Your task to perform on an android device: make emails show in primary in the gmail app Image 0: 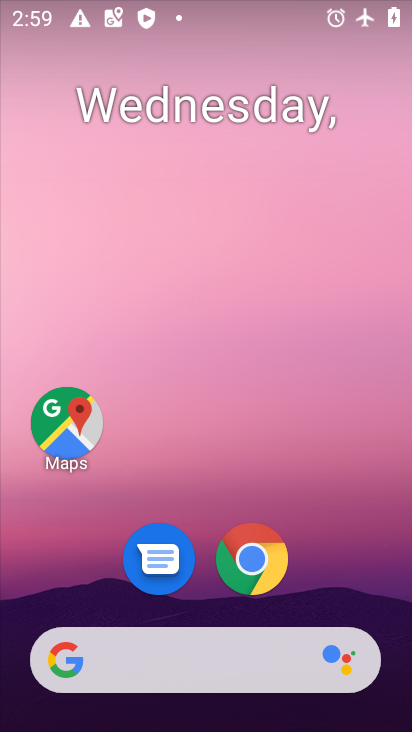
Step 0: drag from (200, 607) to (196, 41)
Your task to perform on an android device: make emails show in primary in the gmail app Image 1: 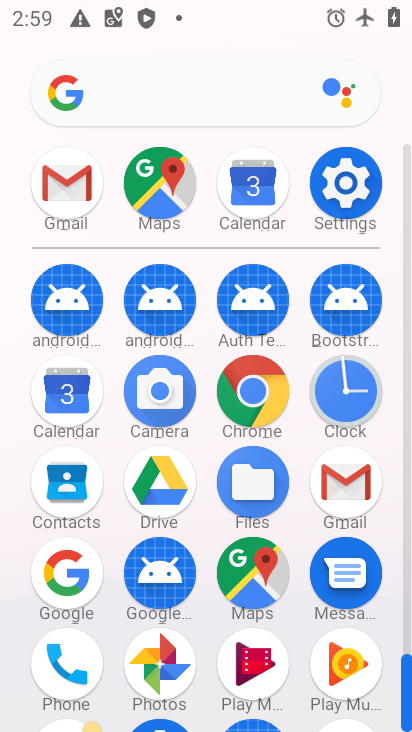
Step 1: drag from (204, 67) to (204, 3)
Your task to perform on an android device: make emails show in primary in the gmail app Image 2: 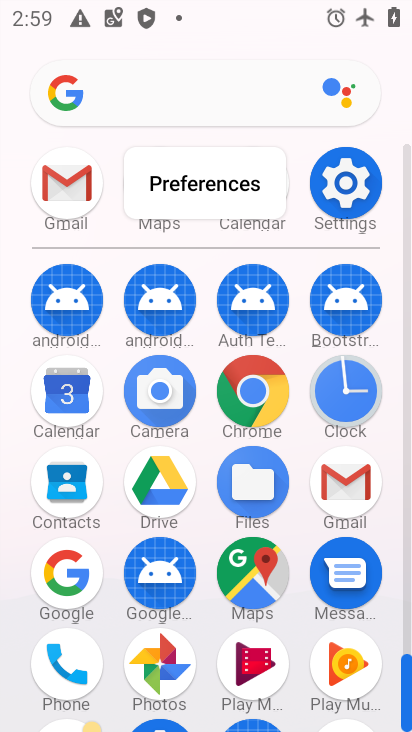
Step 2: click (348, 483)
Your task to perform on an android device: make emails show in primary in the gmail app Image 3: 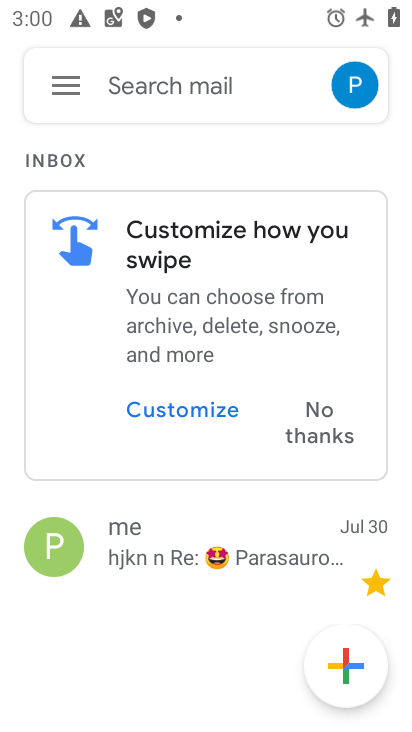
Step 3: click (60, 87)
Your task to perform on an android device: make emails show in primary in the gmail app Image 4: 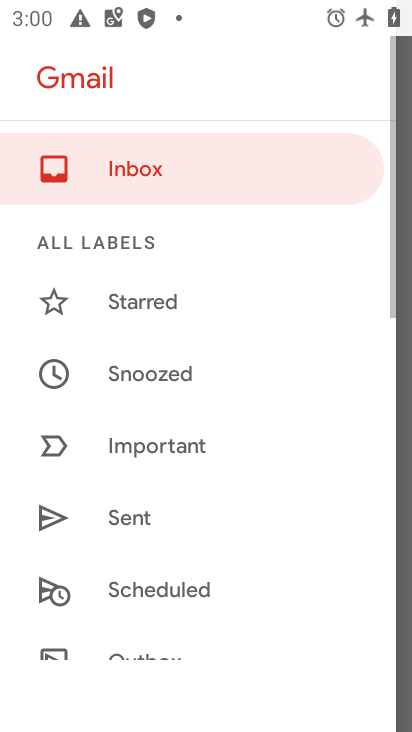
Step 4: drag from (137, 633) to (144, 289)
Your task to perform on an android device: make emails show in primary in the gmail app Image 5: 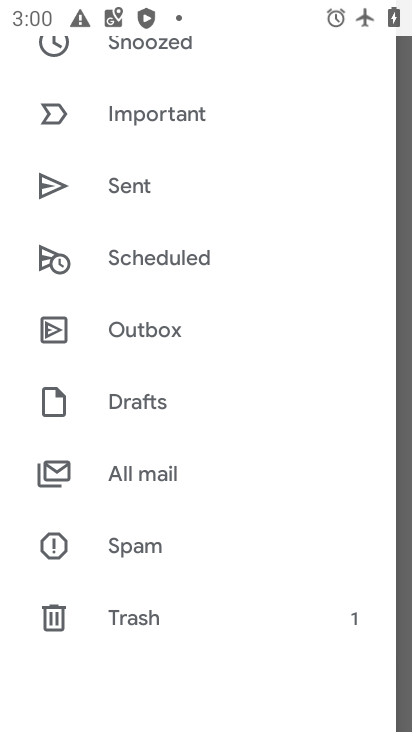
Step 5: drag from (168, 620) to (166, 238)
Your task to perform on an android device: make emails show in primary in the gmail app Image 6: 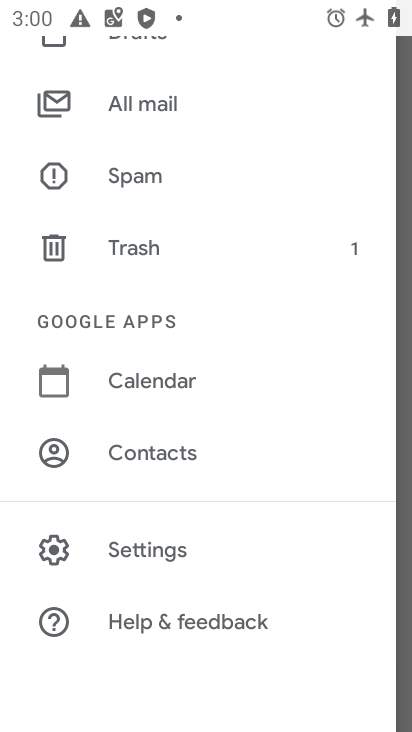
Step 6: click (144, 550)
Your task to perform on an android device: make emails show in primary in the gmail app Image 7: 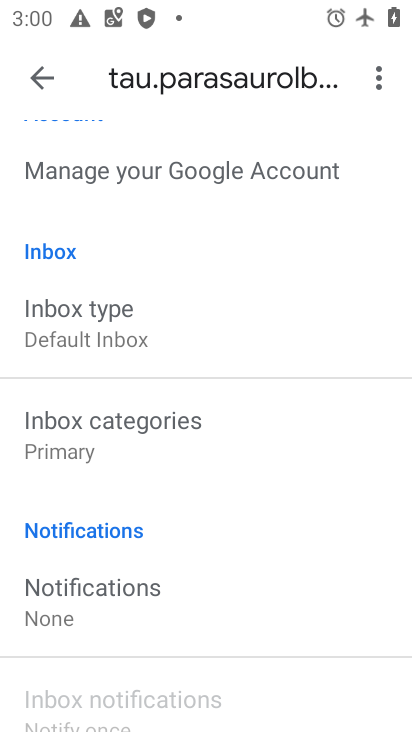
Step 7: task complete